Your task to perform on an android device: check the backup settings in the google photos Image 0: 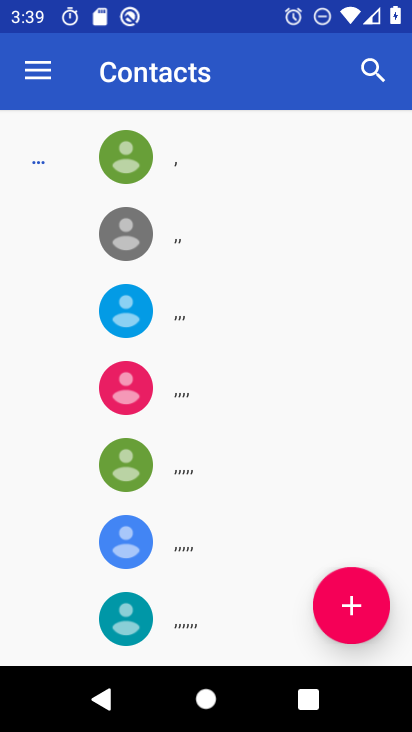
Step 0: press home button
Your task to perform on an android device: check the backup settings in the google photos Image 1: 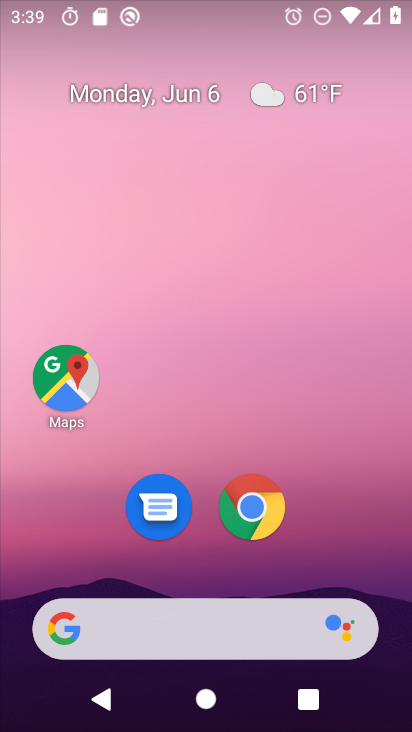
Step 1: drag from (193, 571) to (208, 184)
Your task to perform on an android device: check the backup settings in the google photos Image 2: 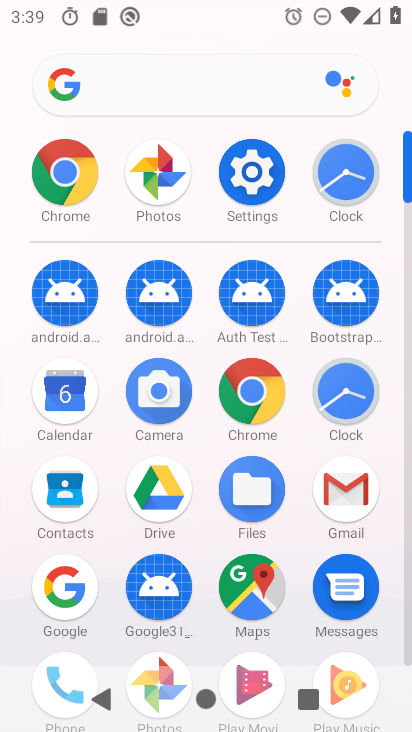
Step 2: click (174, 176)
Your task to perform on an android device: check the backup settings in the google photos Image 3: 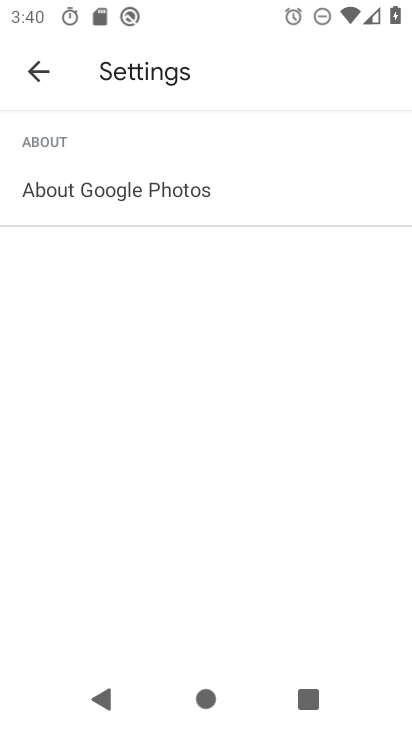
Step 3: click (25, 75)
Your task to perform on an android device: check the backup settings in the google photos Image 4: 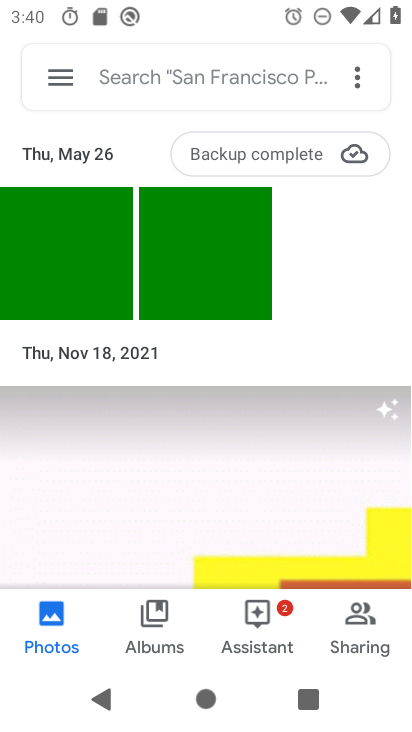
Step 4: click (50, 85)
Your task to perform on an android device: check the backup settings in the google photos Image 5: 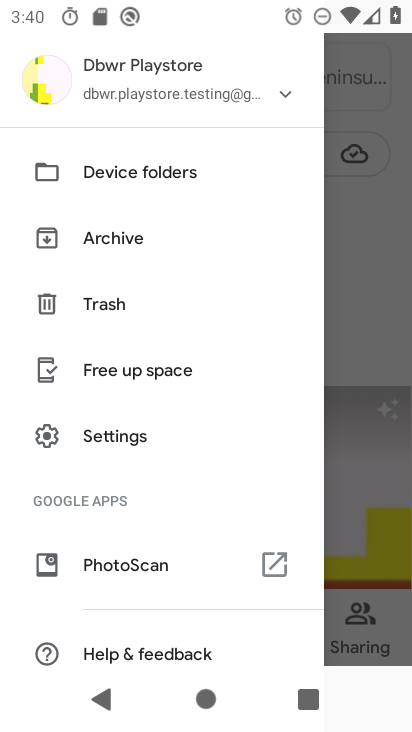
Step 5: drag from (164, 560) to (195, 247)
Your task to perform on an android device: check the backup settings in the google photos Image 6: 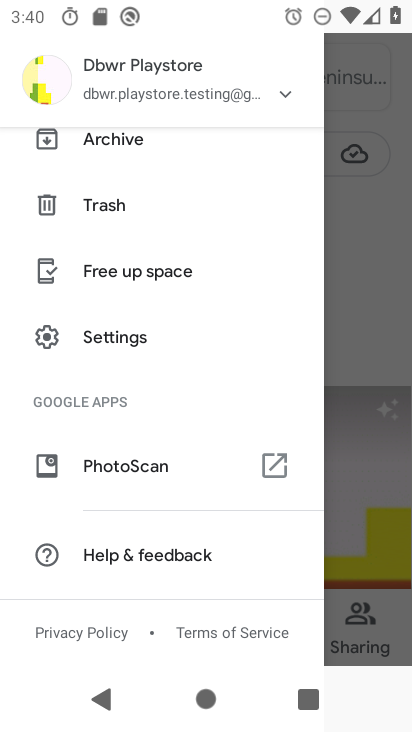
Step 6: click (103, 345)
Your task to perform on an android device: check the backup settings in the google photos Image 7: 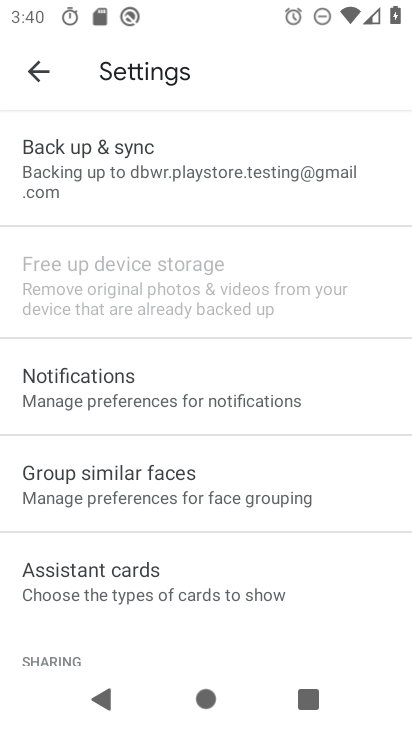
Step 7: click (171, 187)
Your task to perform on an android device: check the backup settings in the google photos Image 8: 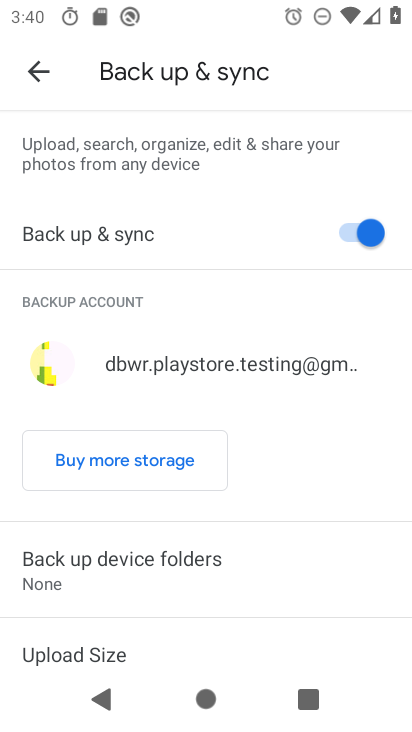
Step 8: task complete